Your task to perform on an android device: Open my contact list Image 0: 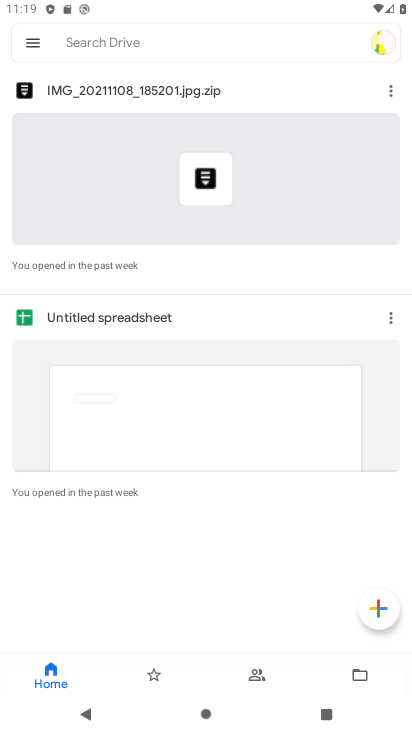
Step 0: press back button
Your task to perform on an android device: Open my contact list Image 1: 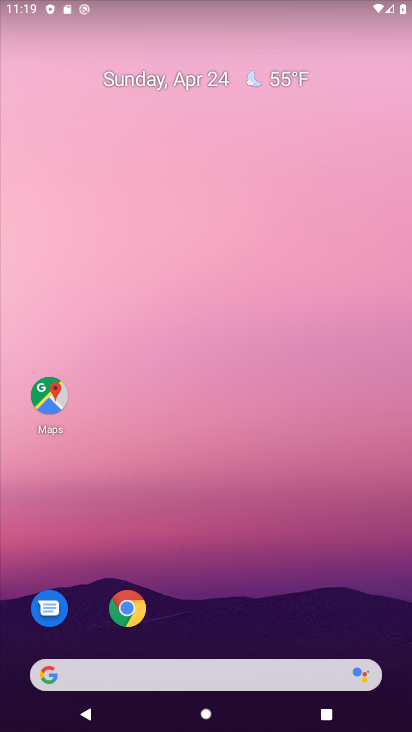
Step 1: drag from (218, 460) to (268, 42)
Your task to perform on an android device: Open my contact list Image 2: 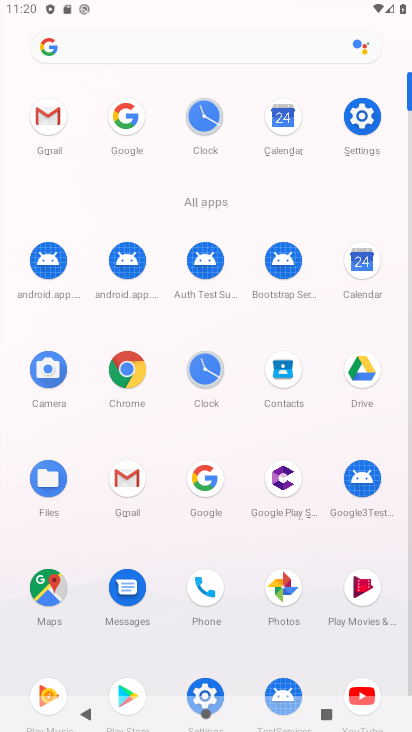
Step 2: click (272, 373)
Your task to perform on an android device: Open my contact list Image 3: 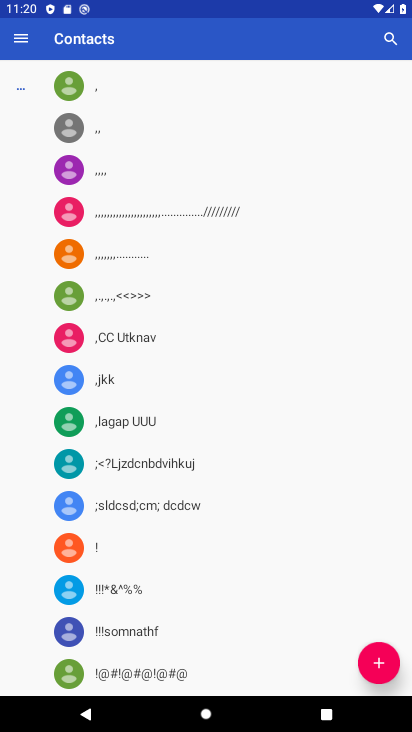
Step 3: click (373, 655)
Your task to perform on an android device: Open my contact list Image 4: 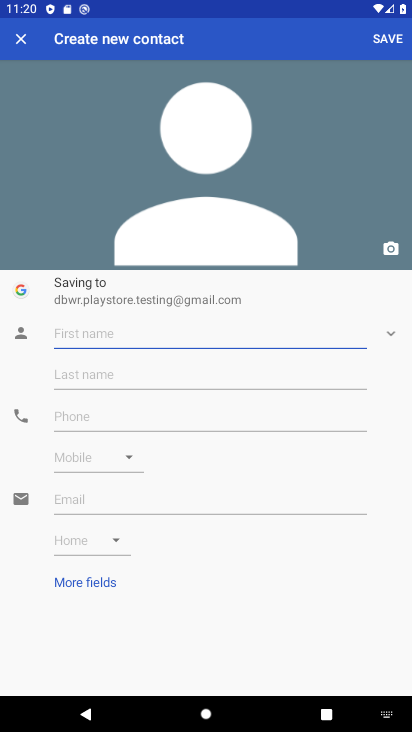
Step 4: click (108, 329)
Your task to perform on an android device: Open my contact list Image 5: 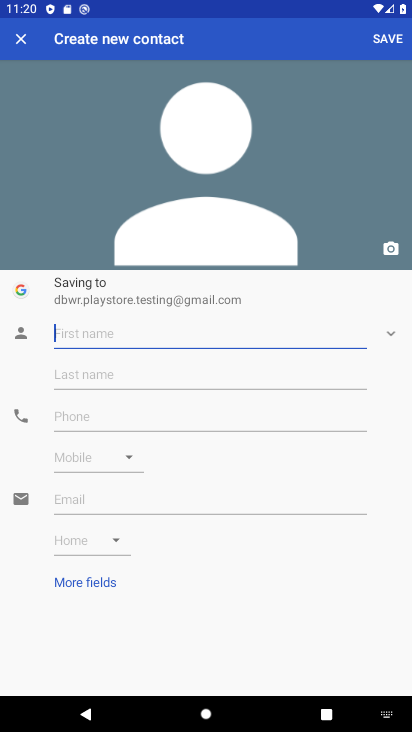
Step 5: type "nbhv"
Your task to perform on an android device: Open my contact list Image 6: 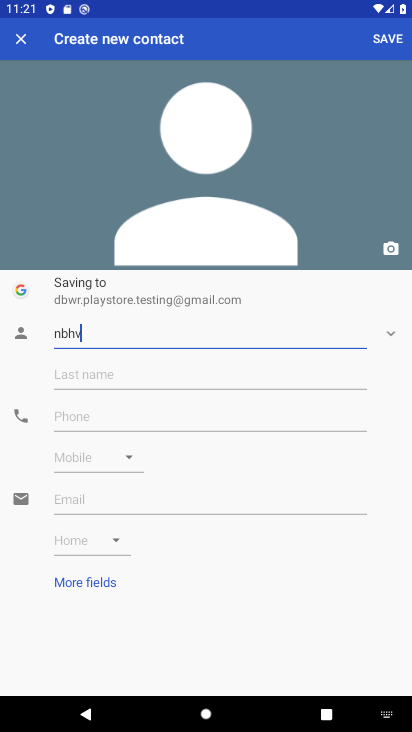
Step 6: click (108, 414)
Your task to perform on an android device: Open my contact list Image 7: 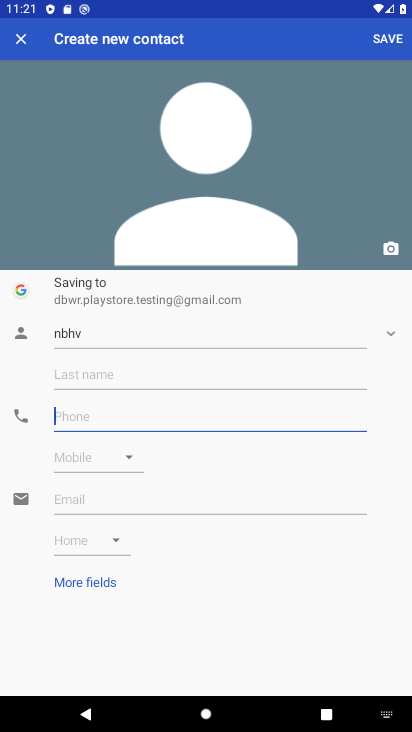
Step 7: type "6868"
Your task to perform on an android device: Open my contact list Image 8: 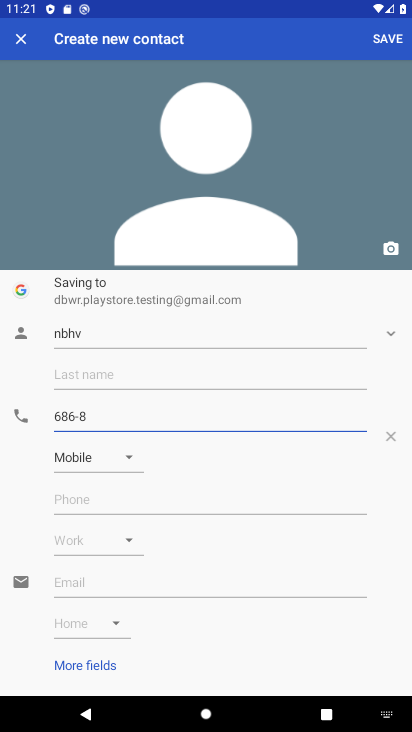
Step 8: click (381, 38)
Your task to perform on an android device: Open my contact list Image 9: 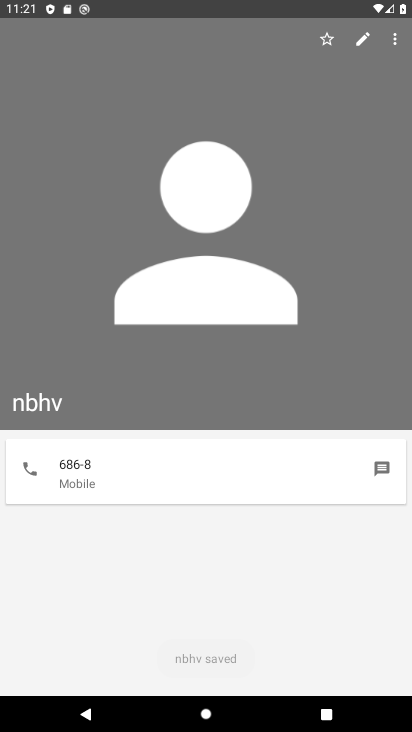
Step 9: task complete